Your task to perform on an android device: Check out the top rated books on Goodreads. Image 0: 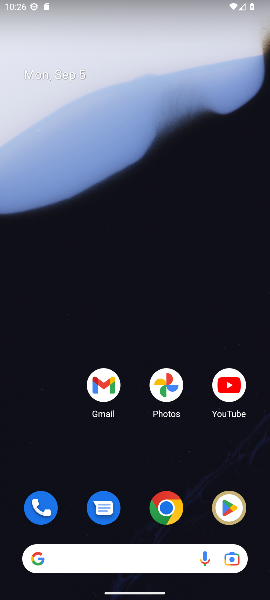
Step 0: drag from (134, 477) to (182, 5)
Your task to perform on an android device: Check out the top rated books on Goodreads. Image 1: 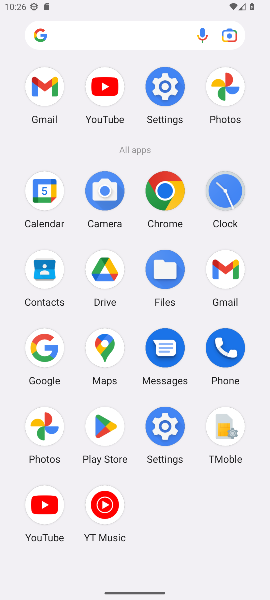
Step 1: click (164, 188)
Your task to perform on an android device: Check out the top rated books on Goodreads. Image 2: 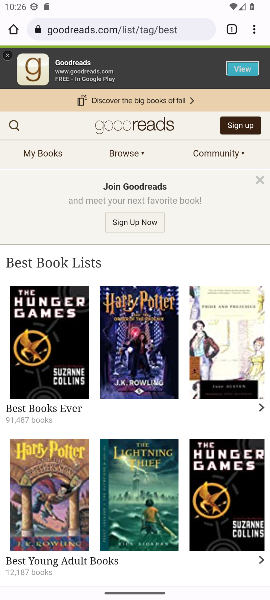
Step 2: click (142, 32)
Your task to perform on an android device: Check out the top rated books on Goodreads. Image 3: 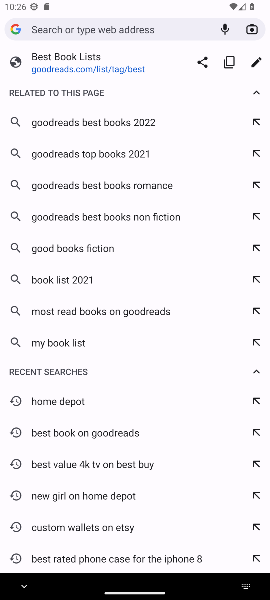
Step 3: press back button
Your task to perform on an android device: Check out the top rated books on Goodreads. Image 4: 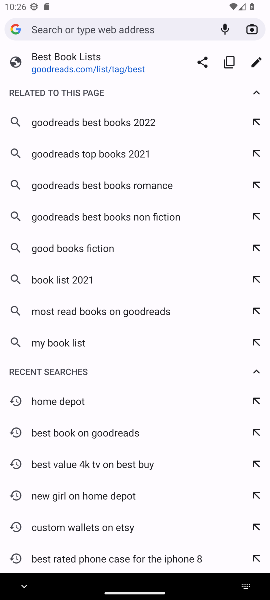
Step 4: type "``"
Your task to perform on an android device: Check out the top rated books on Goodreads. Image 5: 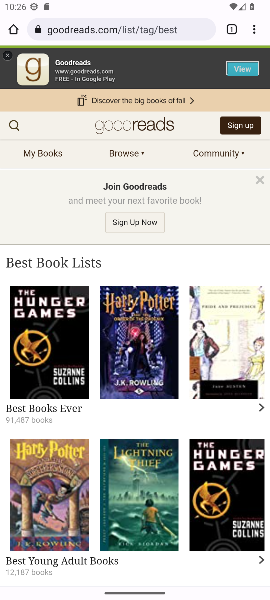
Step 5: task complete